Your task to perform on an android device: turn on bluetooth scan Image 0: 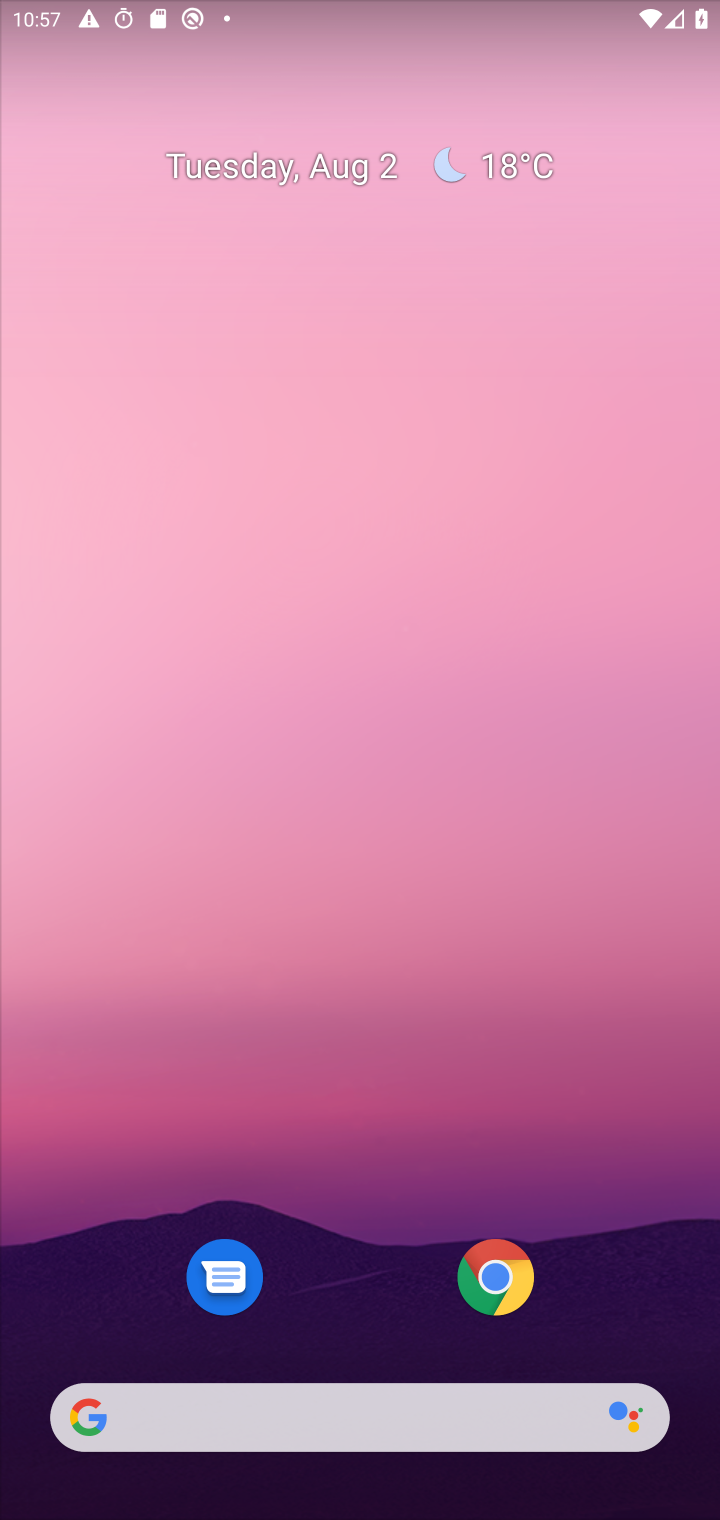
Step 0: press home button
Your task to perform on an android device: turn on bluetooth scan Image 1: 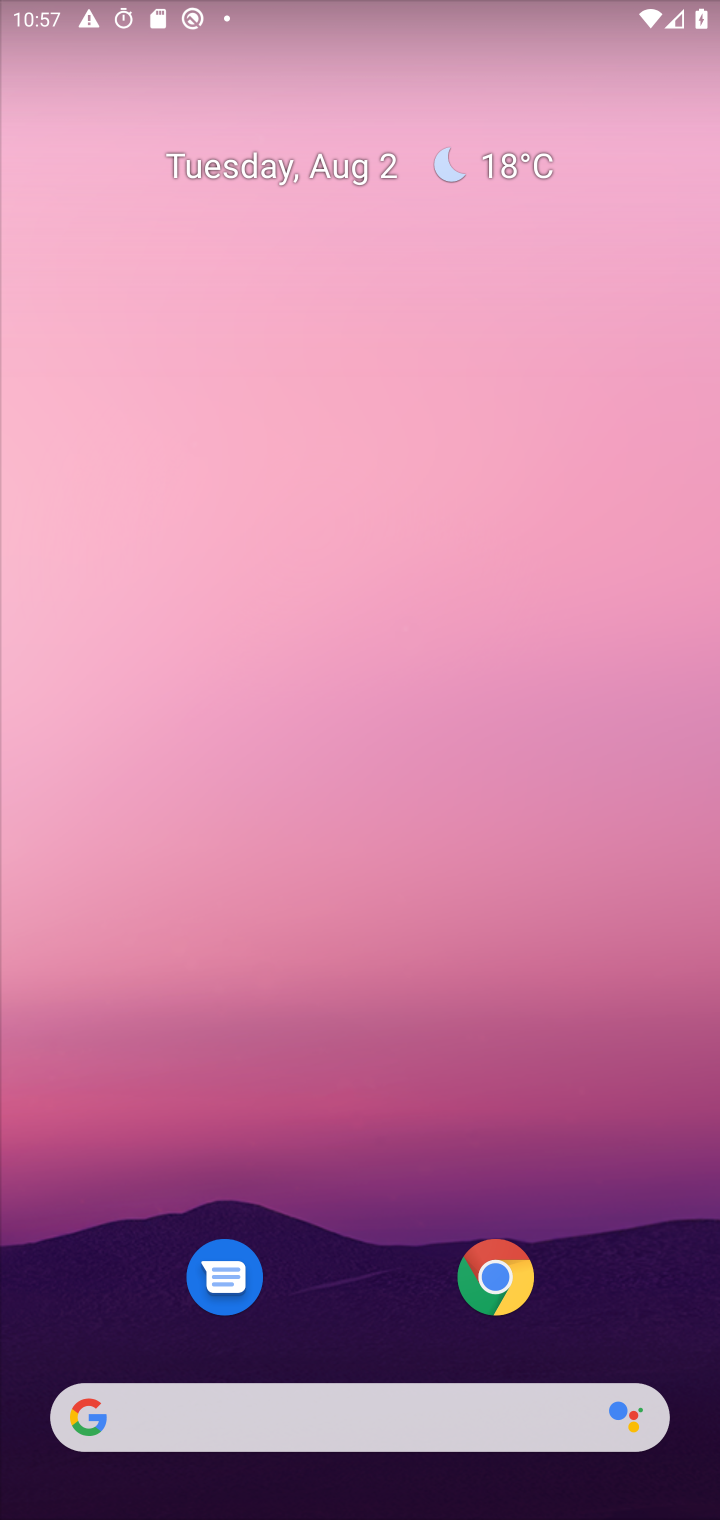
Step 1: drag from (368, 702) to (271, 92)
Your task to perform on an android device: turn on bluetooth scan Image 2: 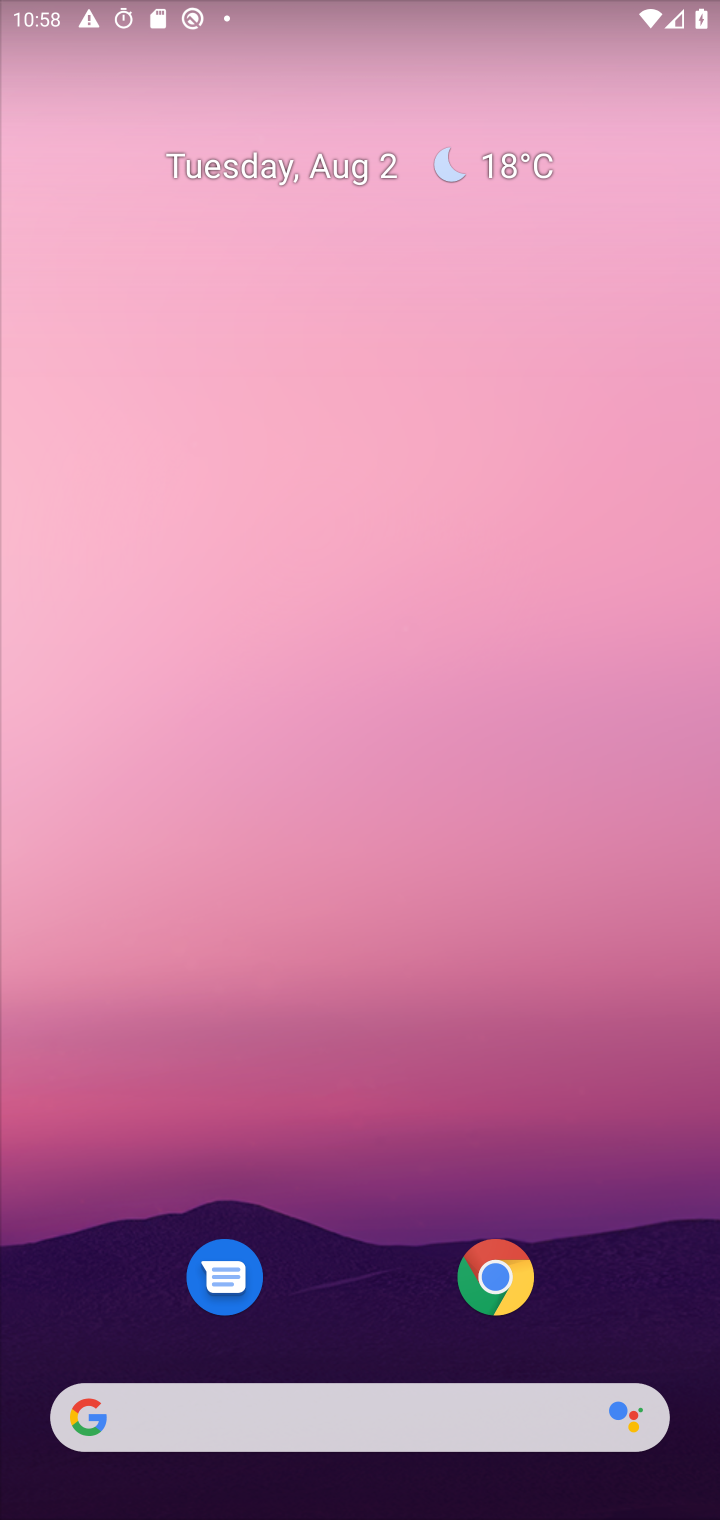
Step 2: drag from (362, 1254) to (353, 0)
Your task to perform on an android device: turn on bluetooth scan Image 3: 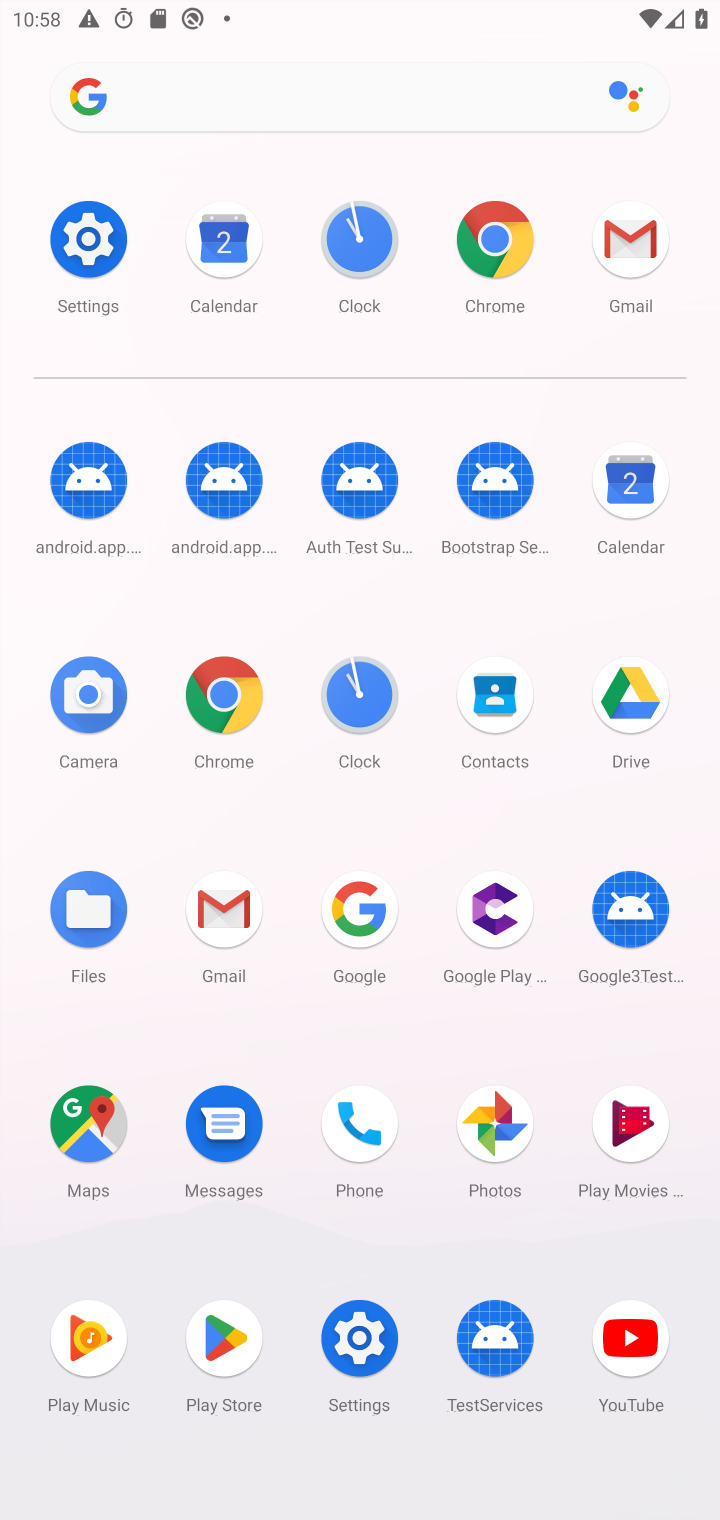
Step 3: click (349, 1351)
Your task to perform on an android device: turn on bluetooth scan Image 4: 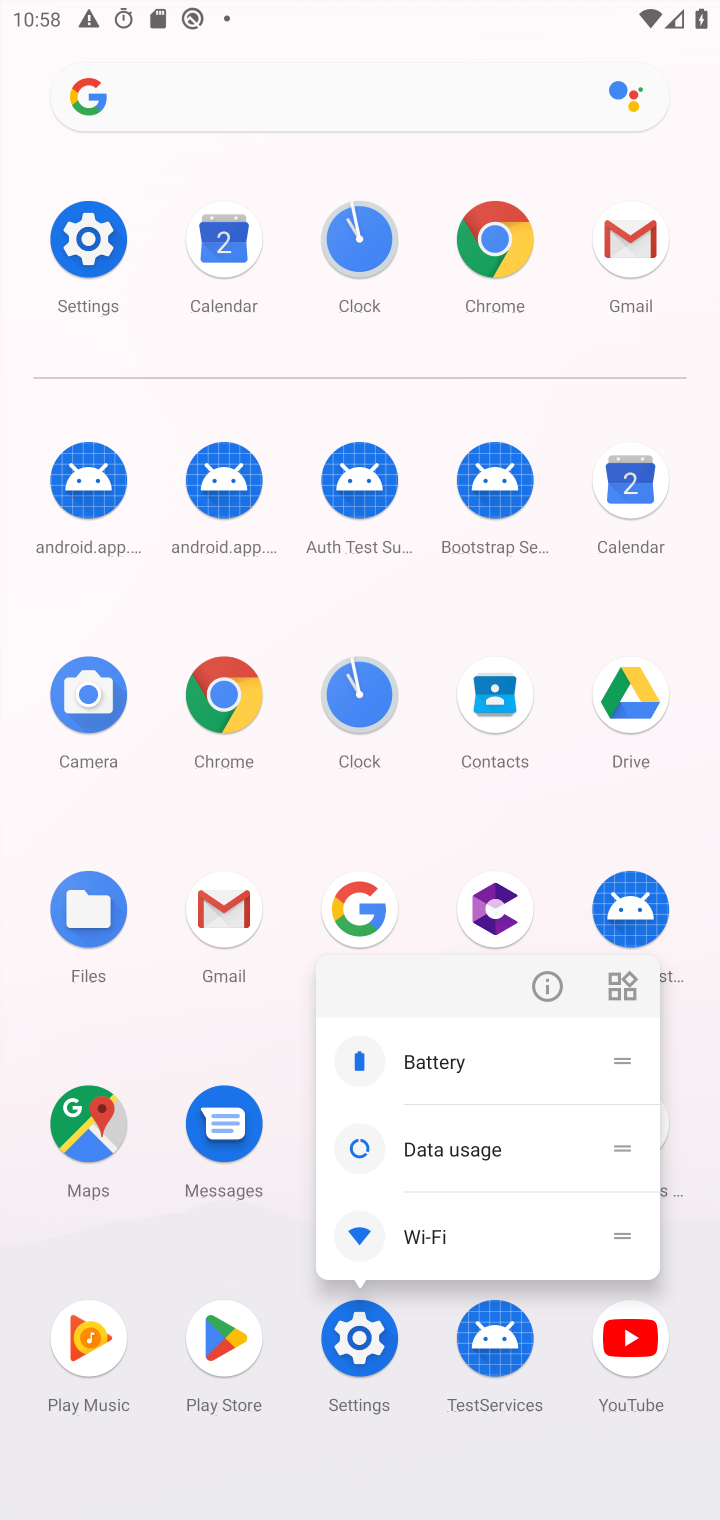
Step 4: click (360, 1347)
Your task to perform on an android device: turn on bluetooth scan Image 5: 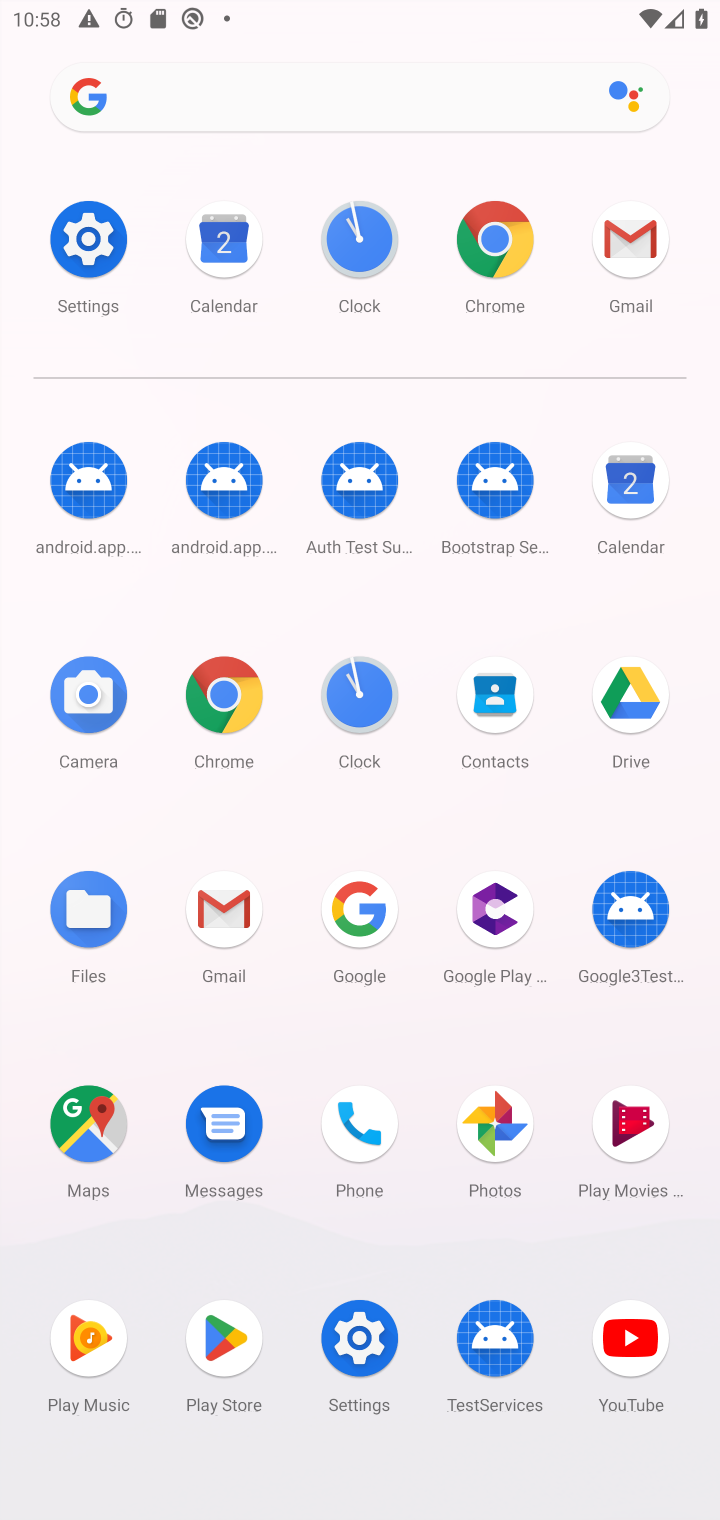
Step 5: click (357, 1328)
Your task to perform on an android device: turn on bluetooth scan Image 6: 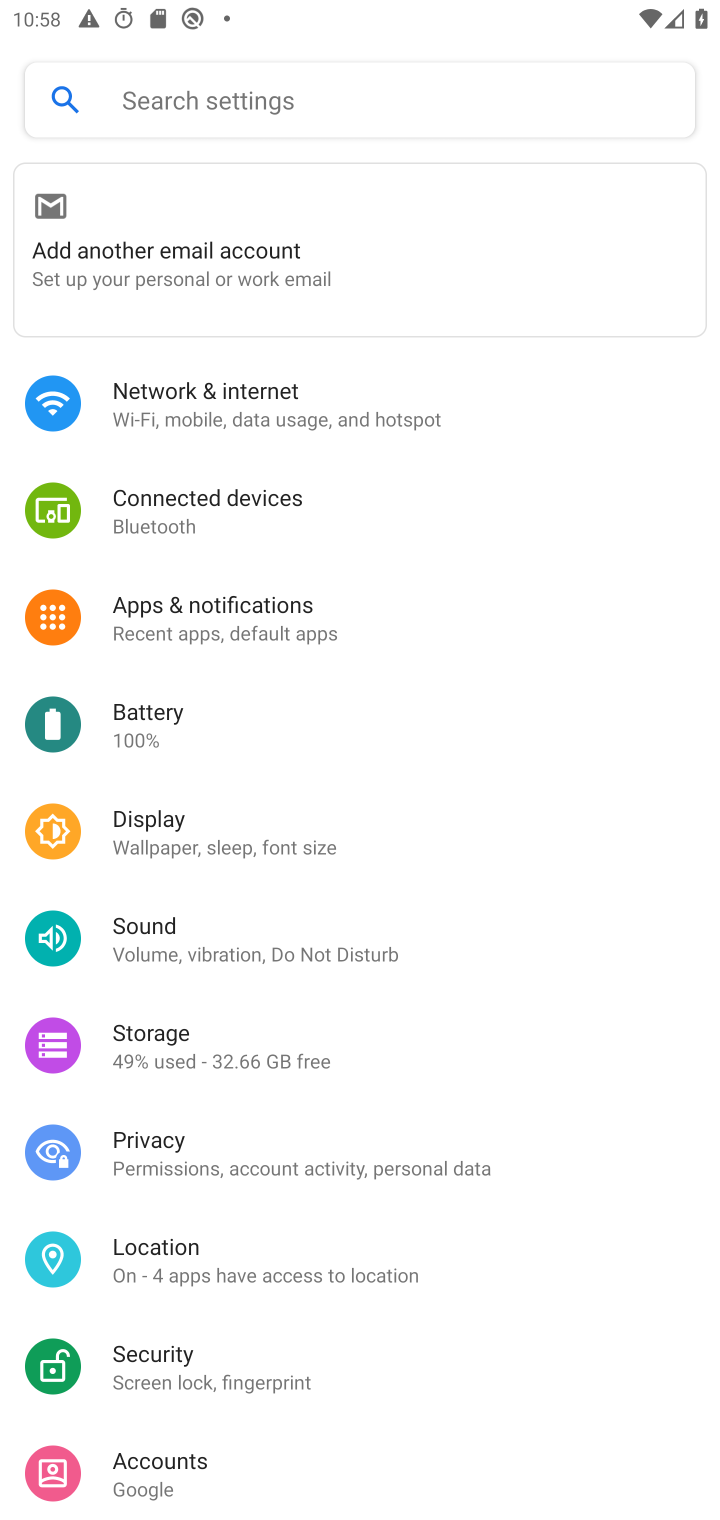
Step 6: click (246, 1262)
Your task to perform on an android device: turn on bluetooth scan Image 7: 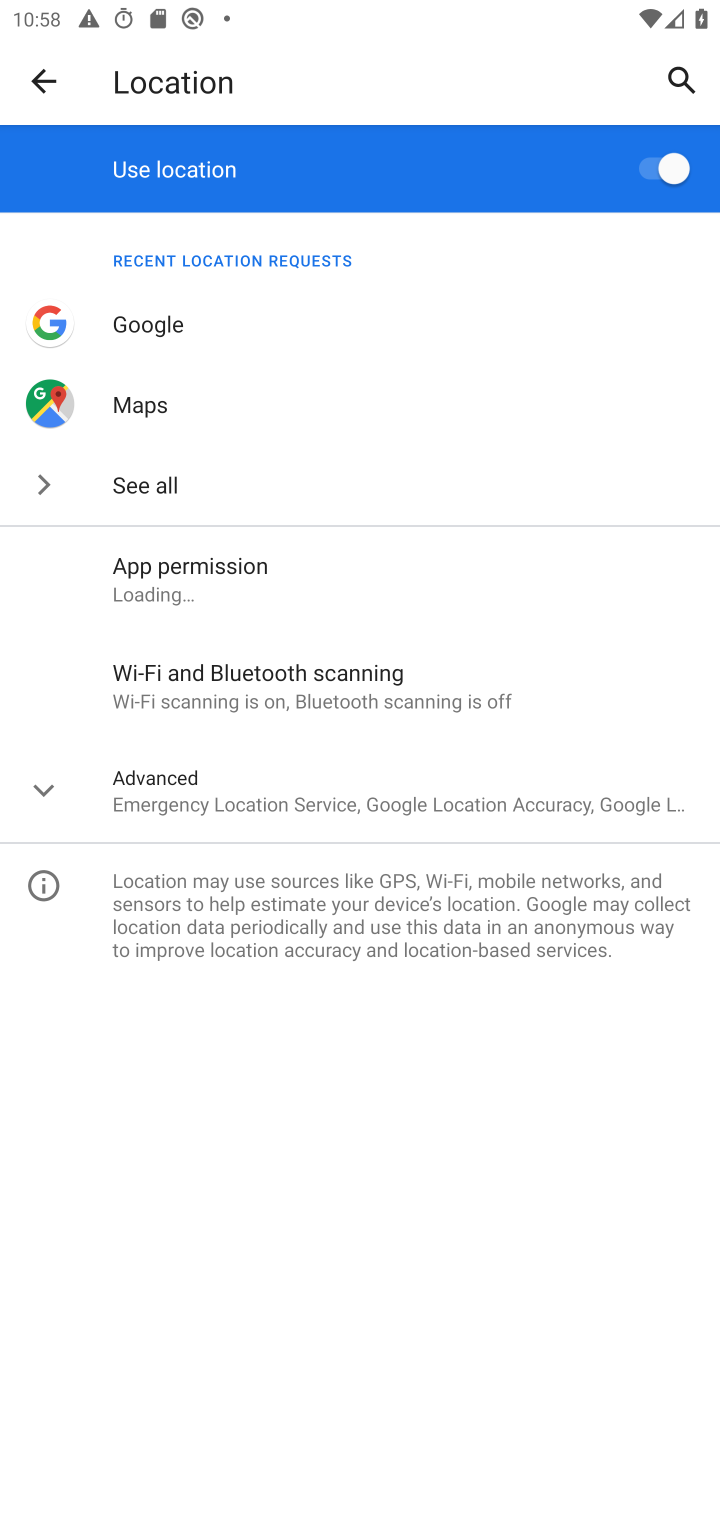
Step 7: click (453, 675)
Your task to perform on an android device: turn on bluetooth scan Image 8: 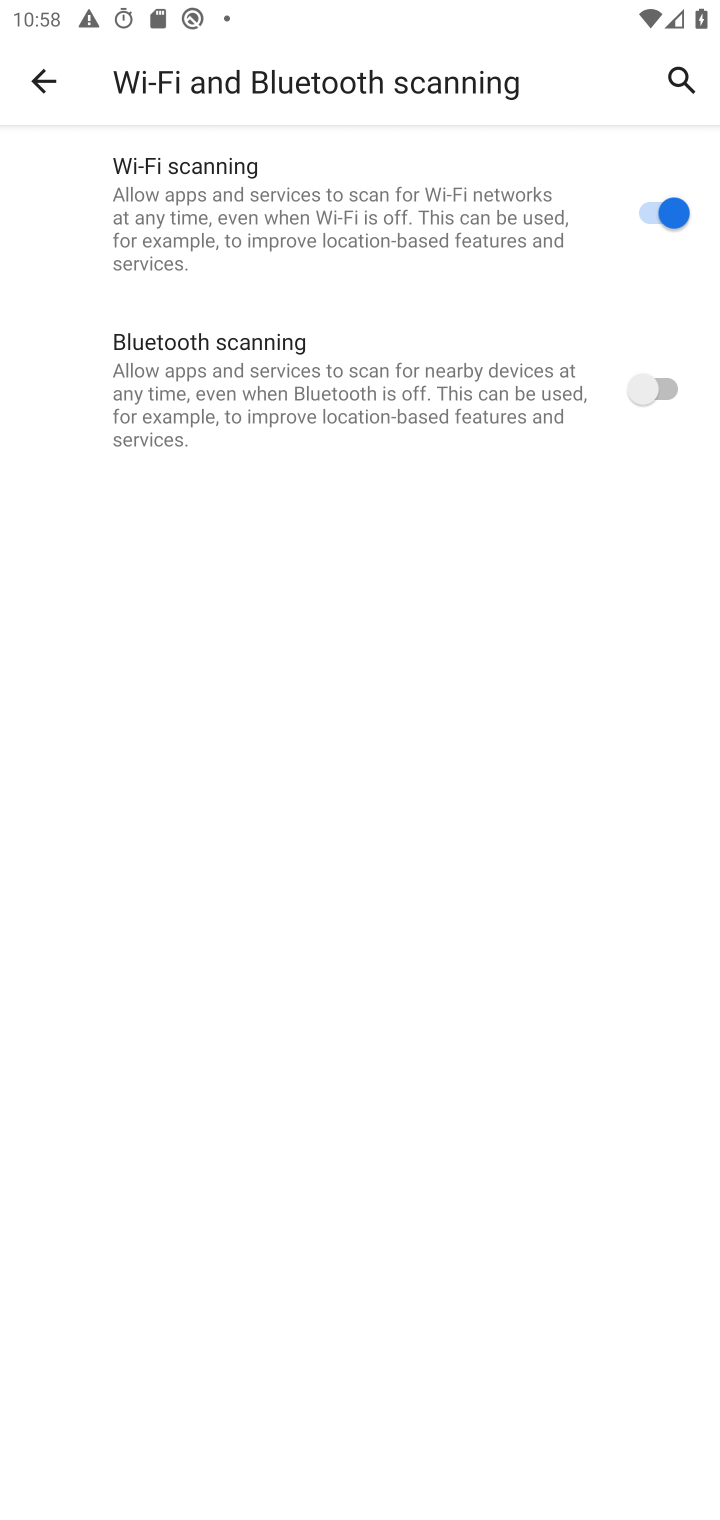
Step 8: click (651, 379)
Your task to perform on an android device: turn on bluetooth scan Image 9: 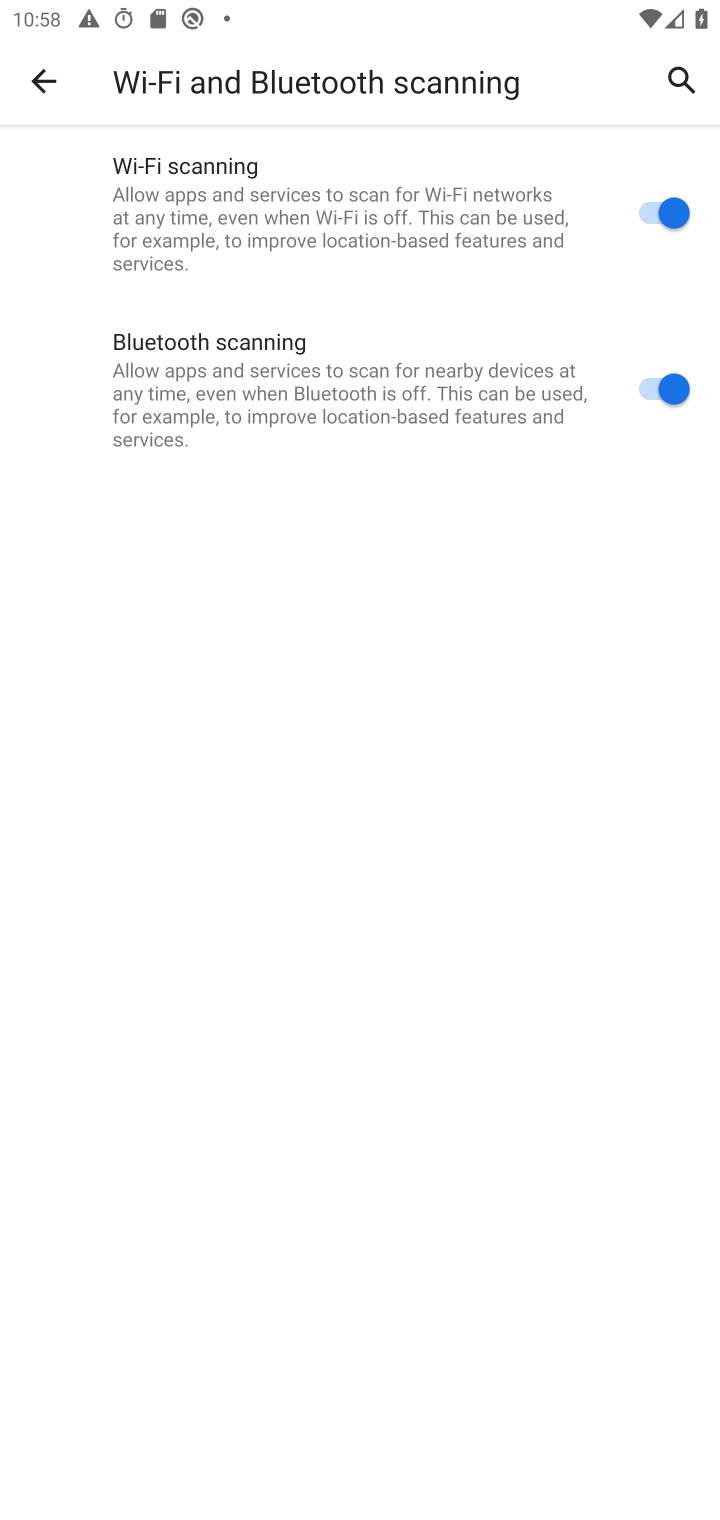
Step 9: task complete